Your task to perform on an android device: Go to Wikipedia Image 0: 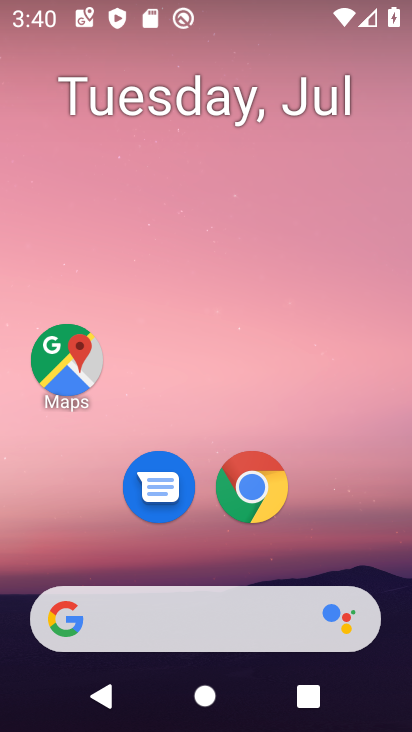
Step 0: drag from (242, 60) to (226, 17)
Your task to perform on an android device: Go to Wikipedia Image 1: 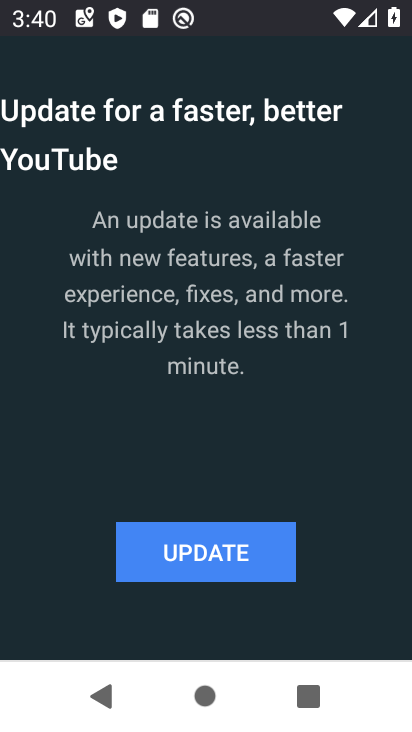
Step 1: press back button
Your task to perform on an android device: Go to Wikipedia Image 2: 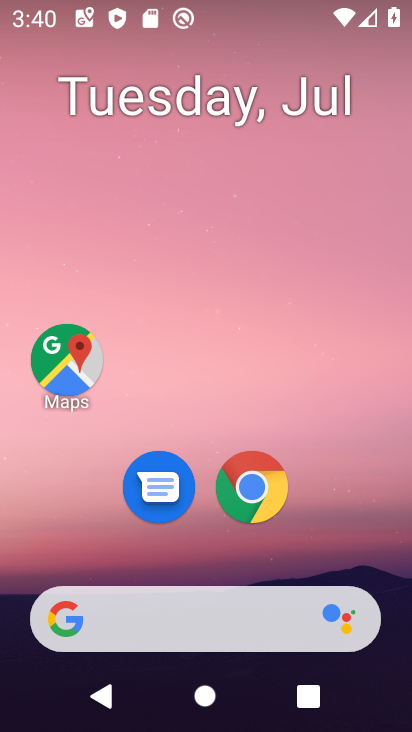
Step 2: click (249, 484)
Your task to perform on an android device: Go to Wikipedia Image 3: 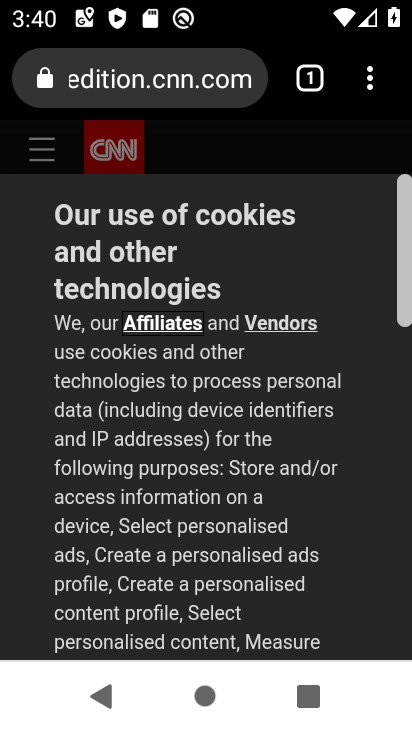
Step 3: click (310, 72)
Your task to perform on an android device: Go to Wikipedia Image 4: 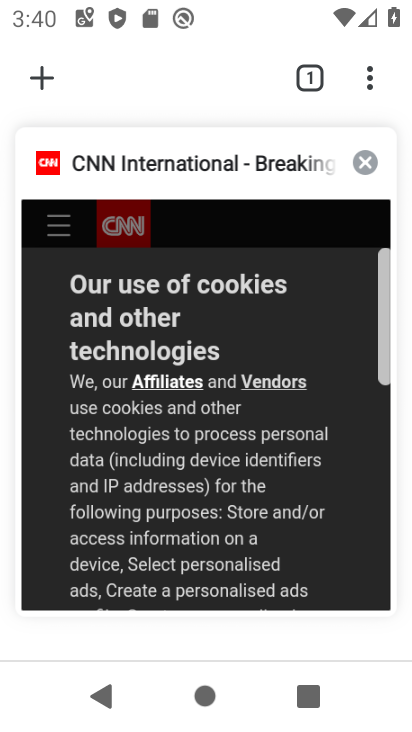
Step 4: click (55, 78)
Your task to perform on an android device: Go to Wikipedia Image 5: 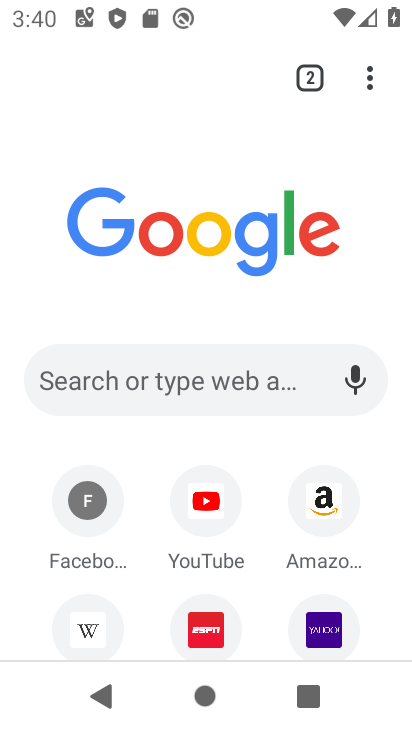
Step 5: click (72, 628)
Your task to perform on an android device: Go to Wikipedia Image 6: 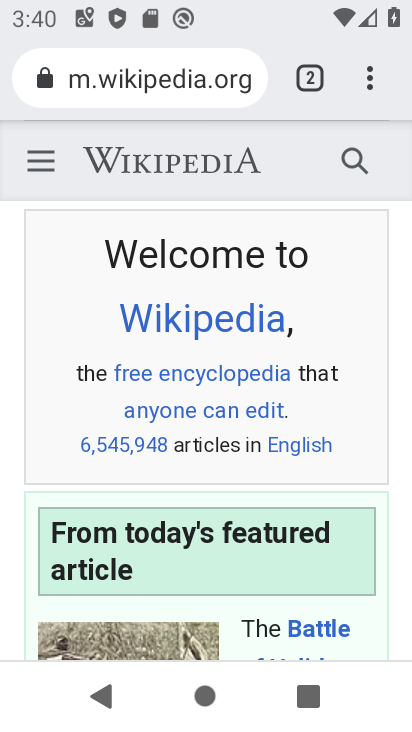
Step 6: task complete